Your task to perform on an android device: toggle translation in the chrome app Image 0: 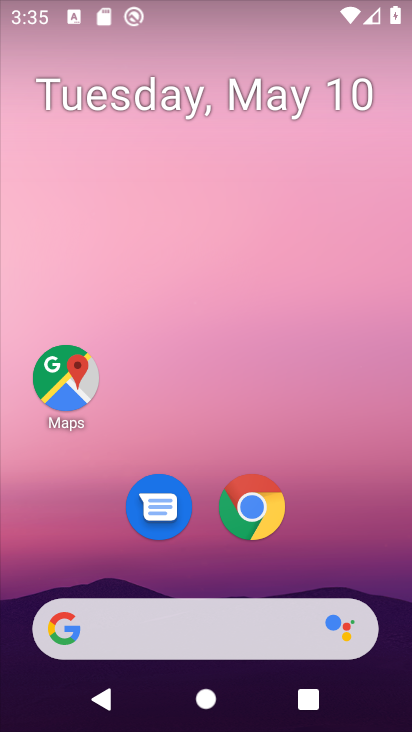
Step 0: click (252, 502)
Your task to perform on an android device: toggle translation in the chrome app Image 1: 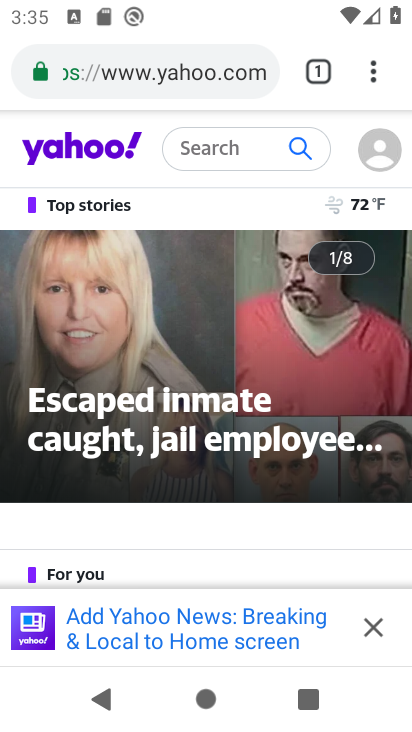
Step 1: click (375, 65)
Your task to perform on an android device: toggle translation in the chrome app Image 2: 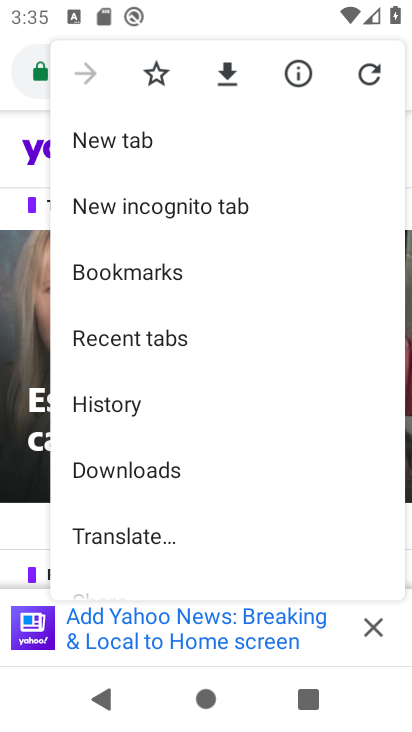
Step 2: drag from (134, 553) to (166, 250)
Your task to perform on an android device: toggle translation in the chrome app Image 3: 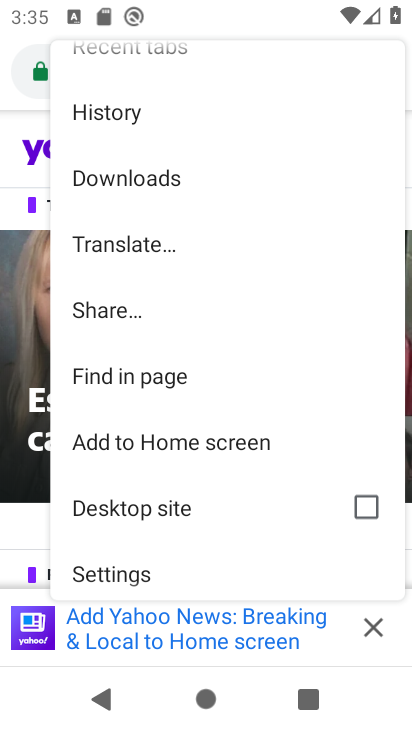
Step 3: click (96, 577)
Your task to perform on an android device: toggle translation in the chrome app Image 4: 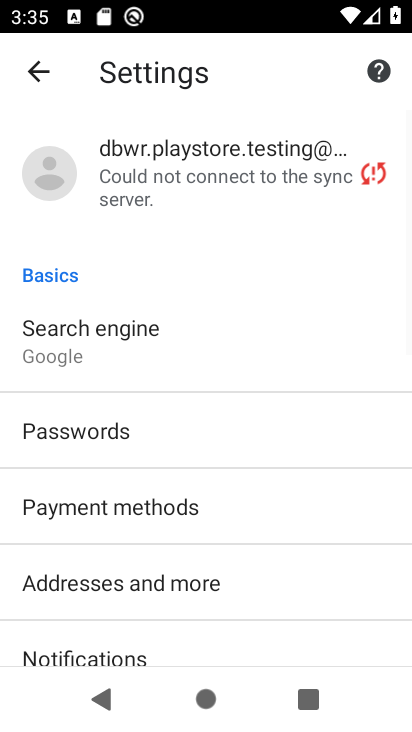
Step 4: drag from (116, 616) to (142, 219)
Your task to perform on an android device: toggle translation in the chrome app Image 5: 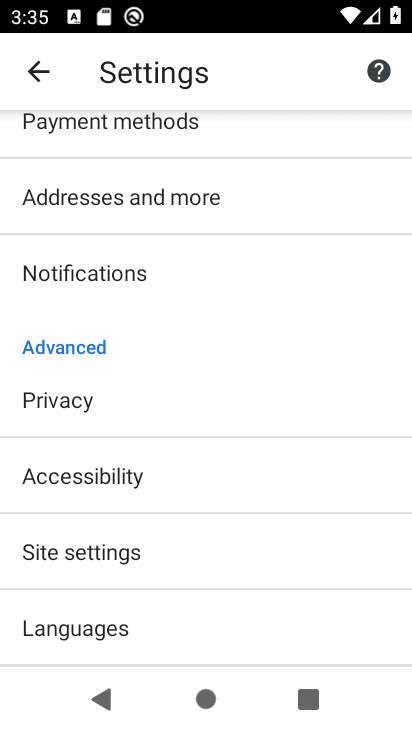
Step 5: click (98, 625)
Your task to perform on an android device: toggle translation in the chrome app Image 6: 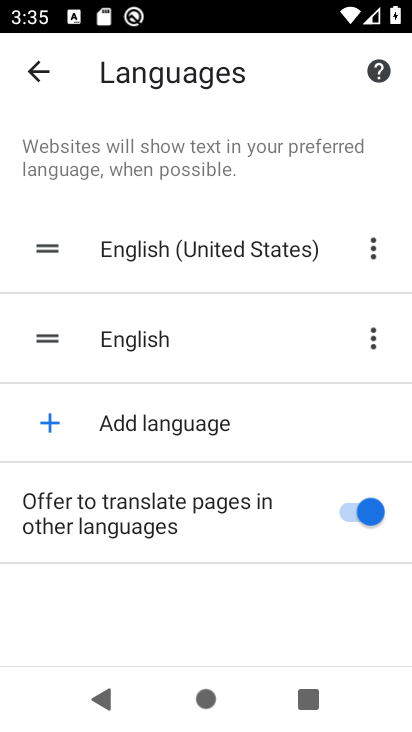
Step 6: click (351, 510)
Your task to perform on an android device: toggle translation in the chrome app Image 7: 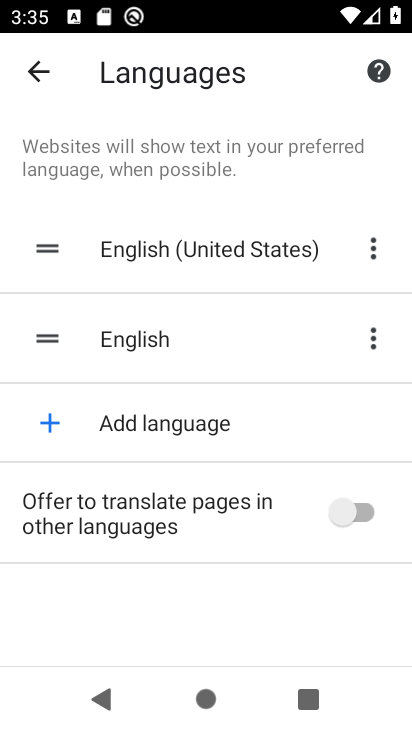
Step 7: task complete